Your task to perform on an android device: see sites visited before in the chrome app Image 0: 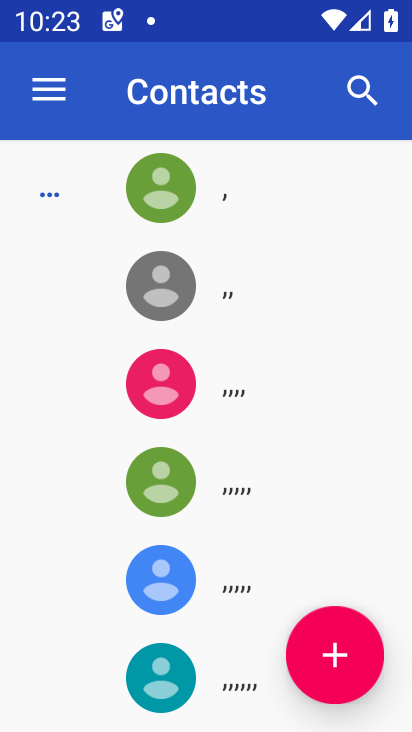
Step 0: press home button
Your task to perform on an android device: see sites visited before in the chrome app Image 1: 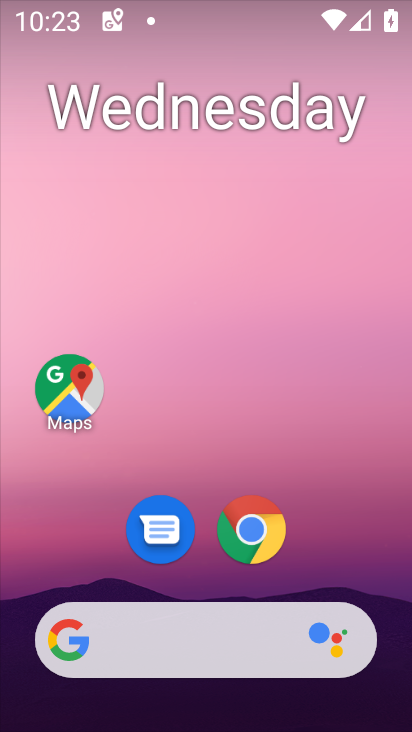
Step 1: click (248, 532)
Your task to perform on an android device: see sites visited before in the chrome app Image 2: 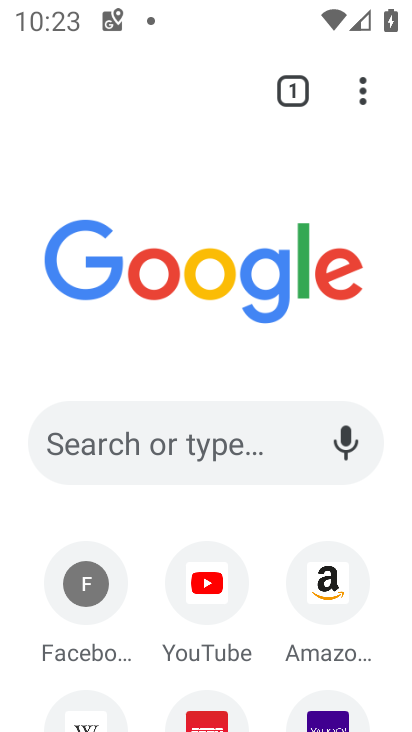
Step 2: click (364, 100)
Your task to perform on an android device: see sites visited before in the chrome app Image 3: 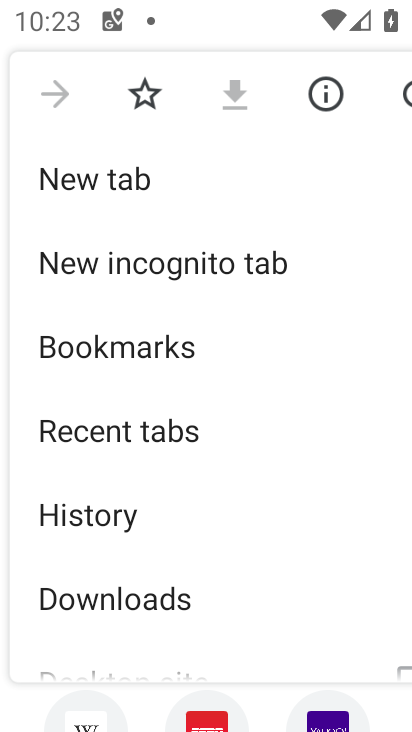
Step 3: drag from (207, 579) to (220, 306)
Your task to perform on an android device: see sites visited before in the chrome app Image 4: 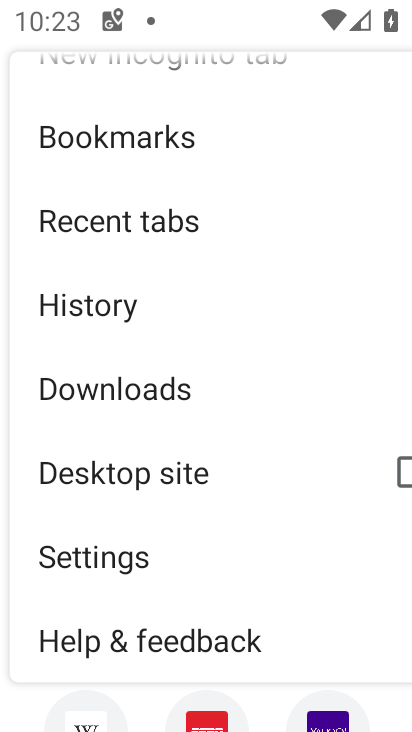
Step 4: click (101, 289)
Your task to perform on an android device: see sites visited before in the chrome app Image 5: 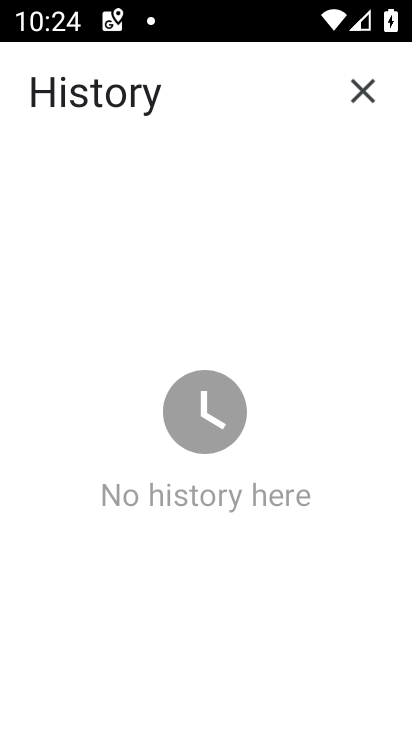
Step 5: task complete